Your task to perform on an android device: Open Amazon Image 0: 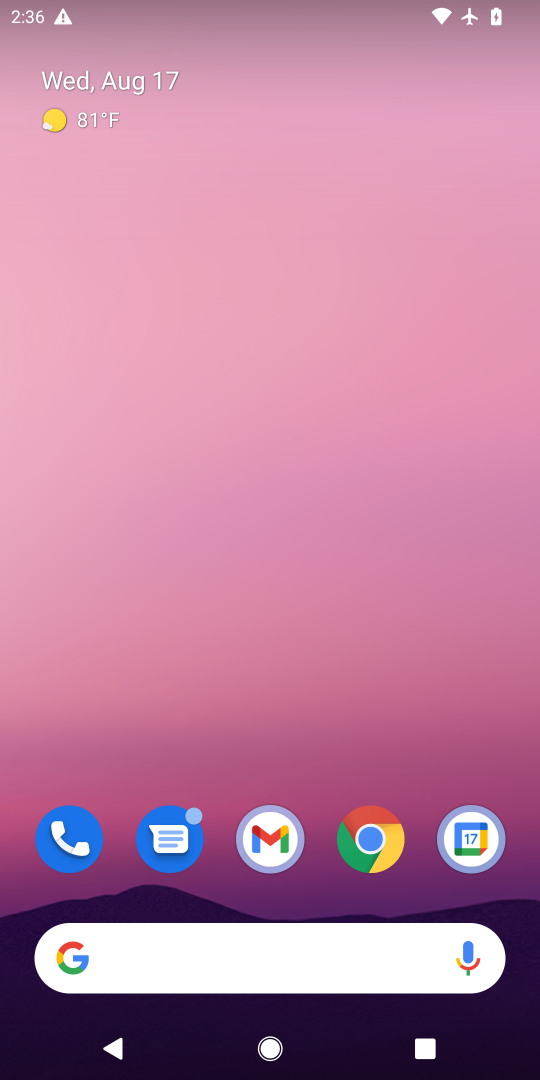
Step 0: click (370, 840)
Your task to perform on an android device: Open Amazon Image 1: 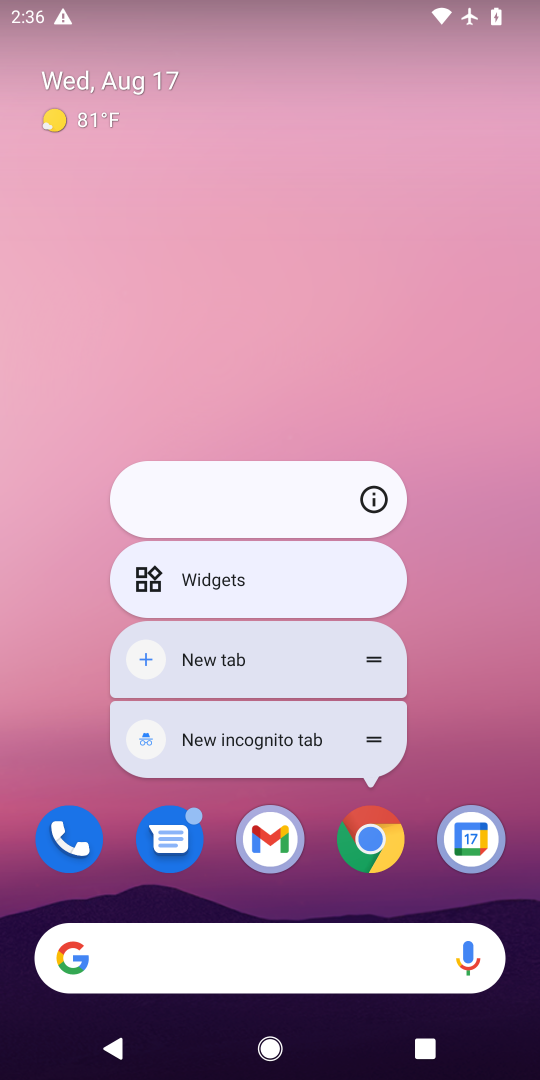
Step 1: click (269, 837)
Your task to perform on an android device: Open Amazon Image 2: 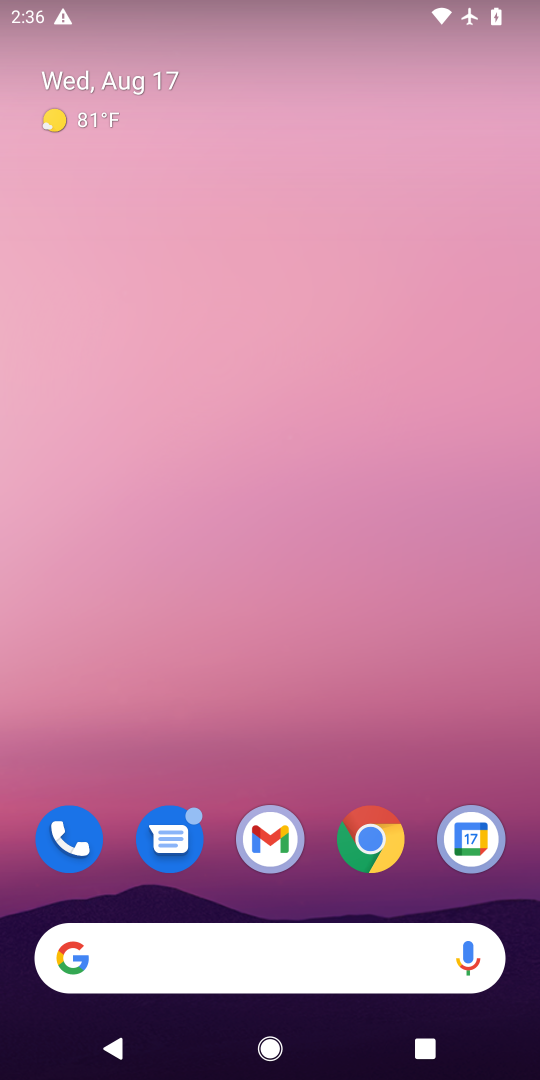
Step 2: click (377, 838)
Your task to perform on an android device: Open Amazon Image 3: 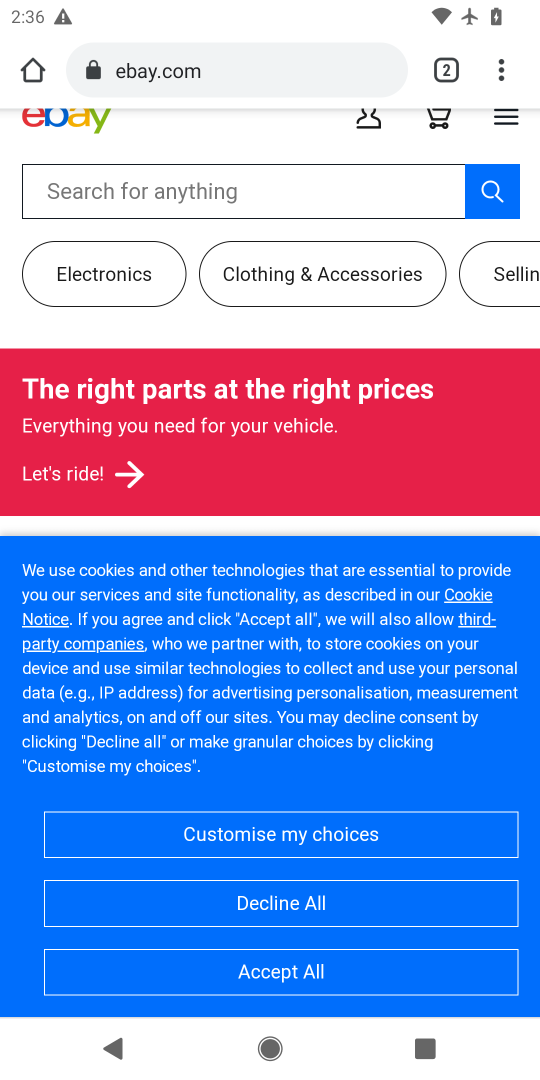
Step 3: drag from (502, 72) to (269, 221)
Your task to perform on an android device: Open Amazon Image 4: 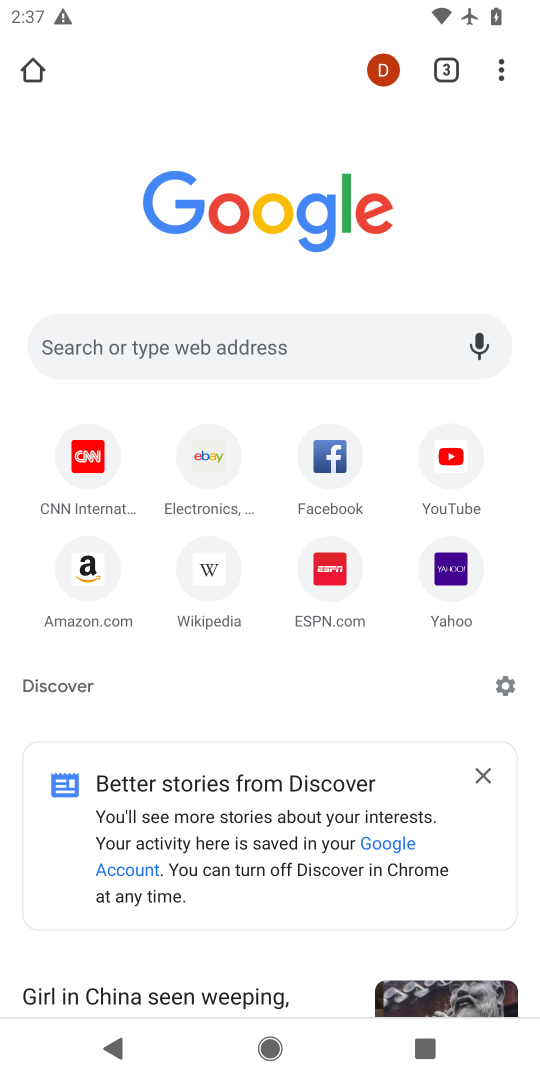
Step 4: click (83, 558)
Your task to perform on an android device: Open Amazon Image 5: 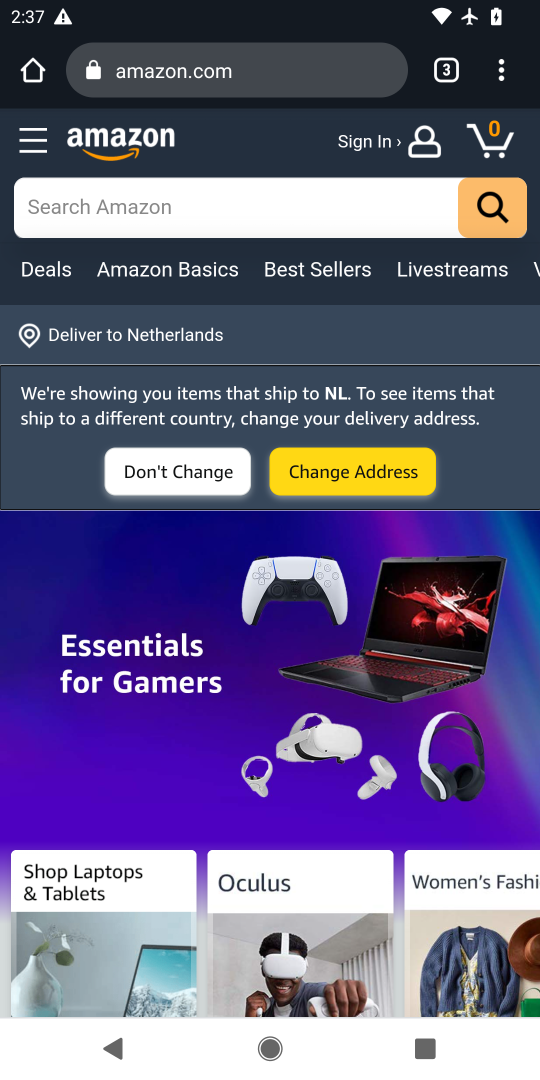
Step 5: task complete